Your task to perform on an android device: turn off picture-in-picture Image 0: 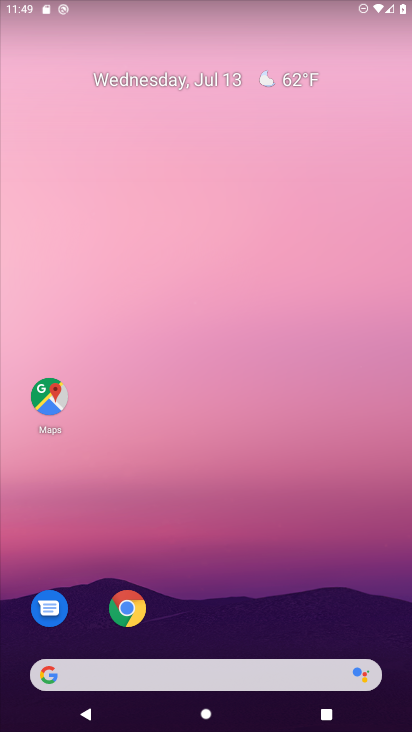
Step 0: drag from (249, 723) to (272, 167)
Your task to perform on an android device: turn off picture-in-picture Image 1: 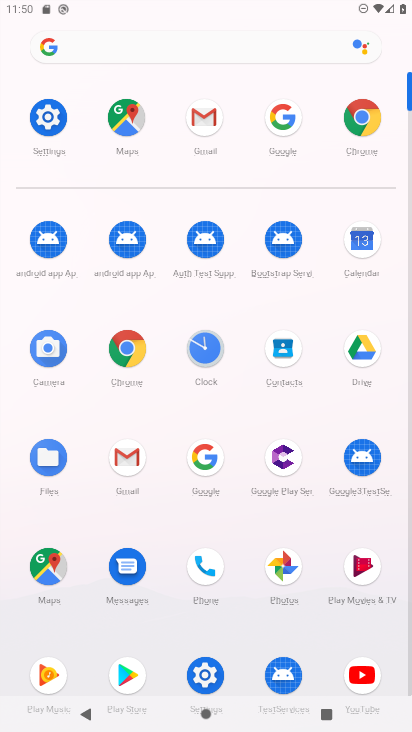
Step 1: click (42, 114)
Your task to perform on an android device: turn off picture-in-picture Image 2: 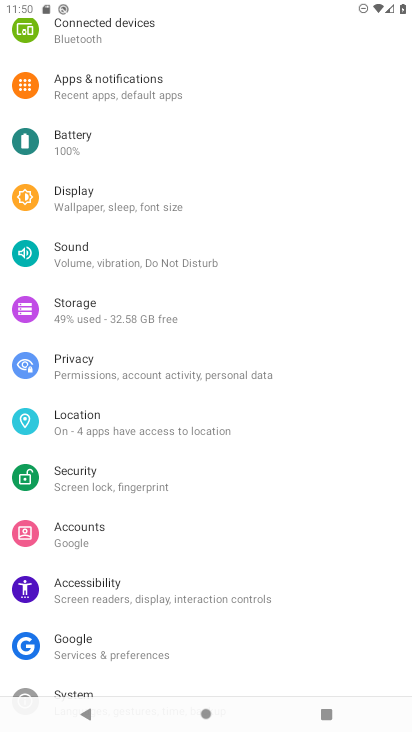
Step 2: click (89, 94)
Your task to perform on an android device: turn off picture-in-picture Image 3: 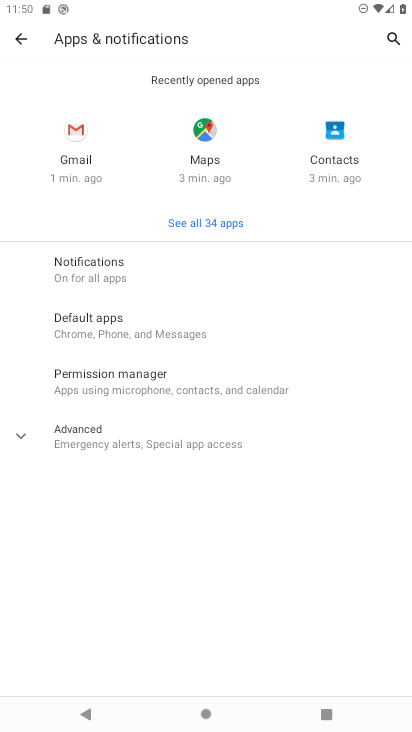
Step 3: click (81, 442)
Your task to perform on an android device: turn off picture-in-picture Image 4: 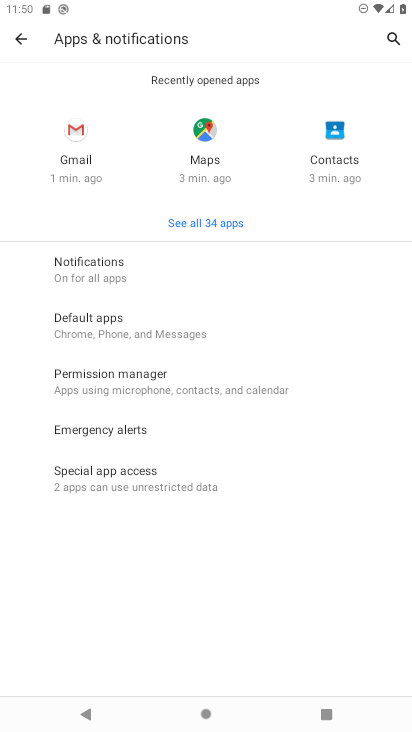
Step 4: click (108, 478)
Your task to perform on an android device: turn off picture-in-picture Image 5: 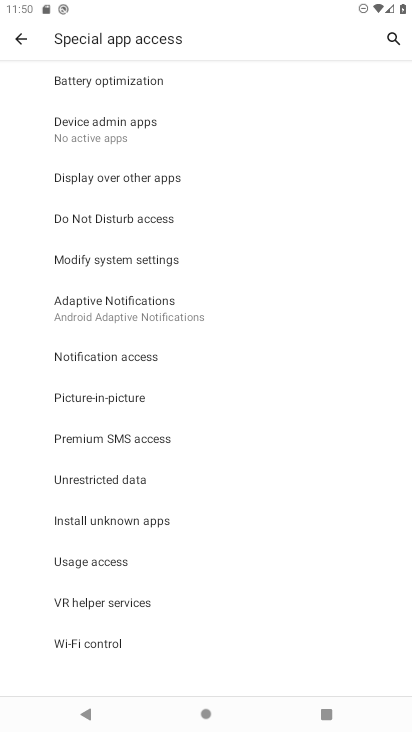
Step 5: click (106, 402)
Your task to perform on an android device: turn off picture-in-picture Image 6: 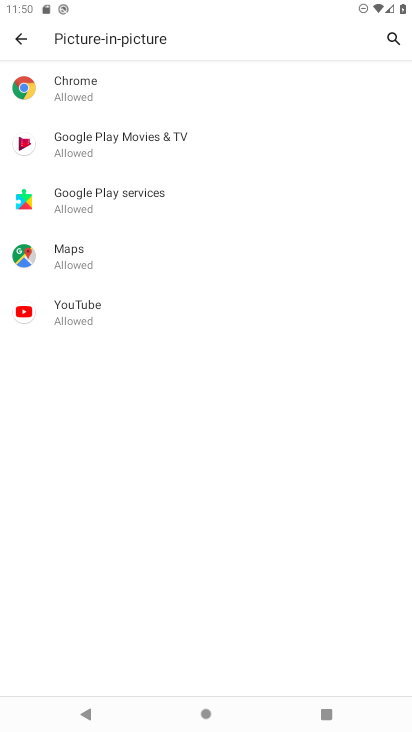
Step 6: click (75, 314)
Your task to perform on an android device: turn off picture-in-picture Image 7: 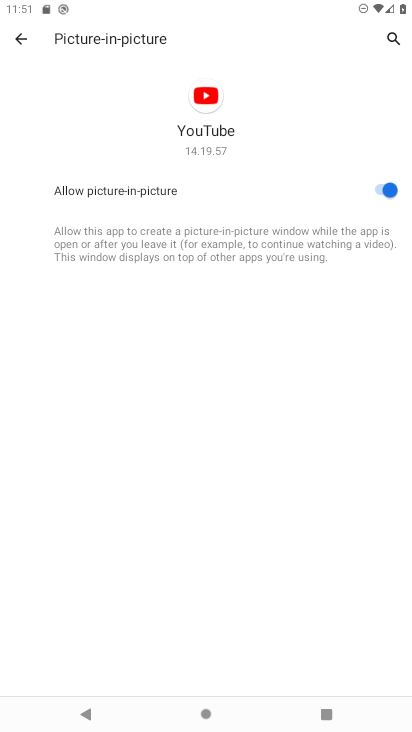
Step 7: click (384, 187)
Your task to perform on an android device: turn off picture-in-picture Image 8: 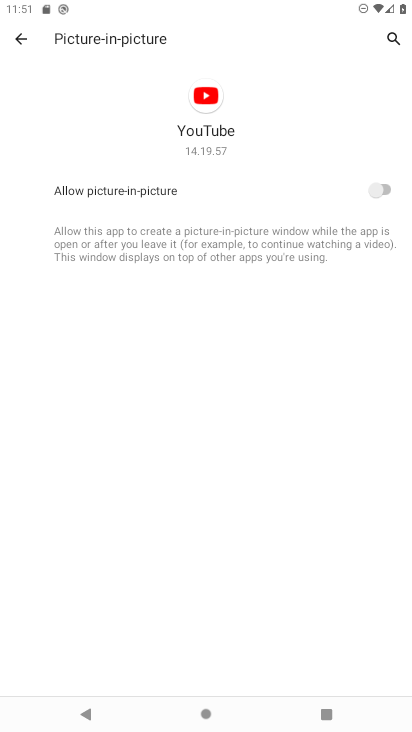
Step 8: task complete